Your task to perform on an android device: Do I have any events this weekend? Image 0: 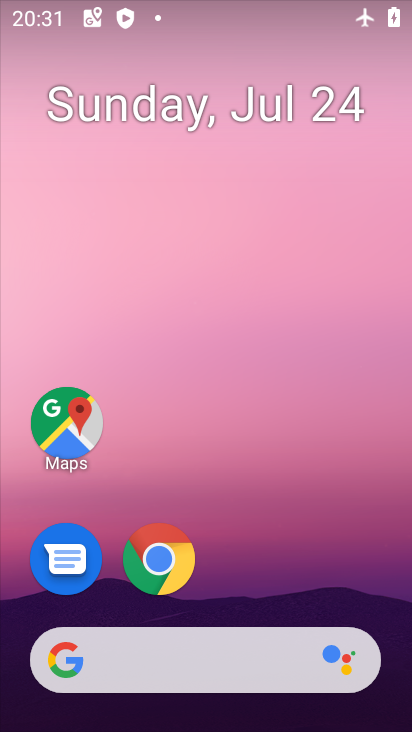
Step 0: press home button
Your task to perform on an android device: Do I have any events this weekend? Image 1: 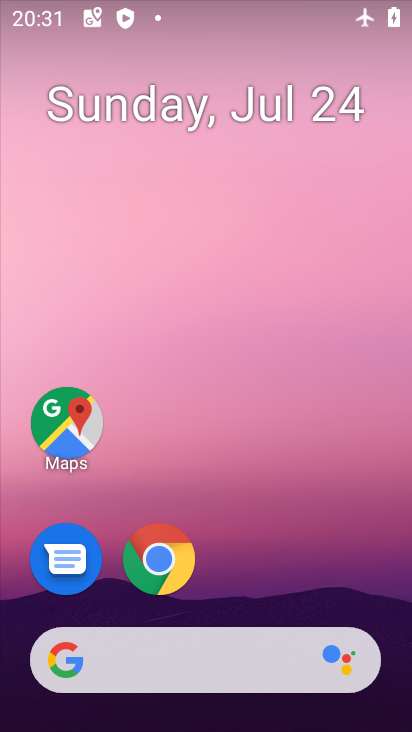
Step 1: drag from (362, 576) to (344, 43)
Your task to perform on an android device: Do I have any events this weekend? Image 2: 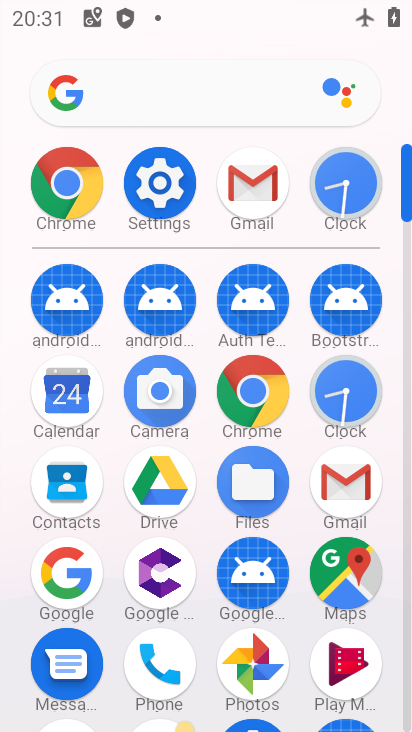
Step 2: click (82, 394)
Your task to perform on an android device: Do I have any events this weekend? Image 3: 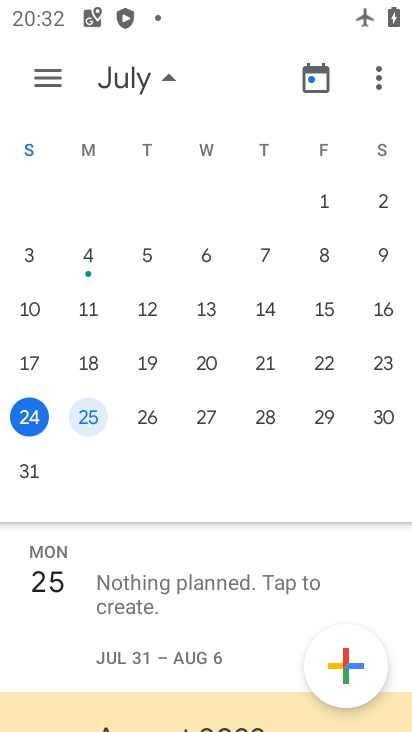
Step 3: task complete